Your task to perform on an android device: make emails show in primary in the gmail app Image 0: 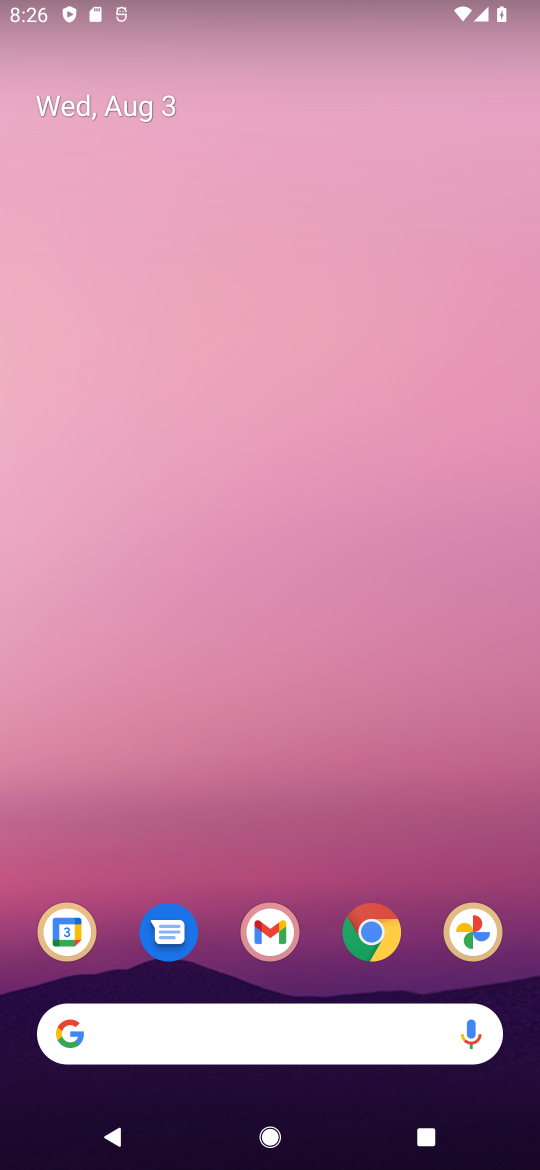
Step 0: drag from (269, 938) to (313, 143)
Your task to perform on an android device: make emails show in primary in the gmail app Image 1: 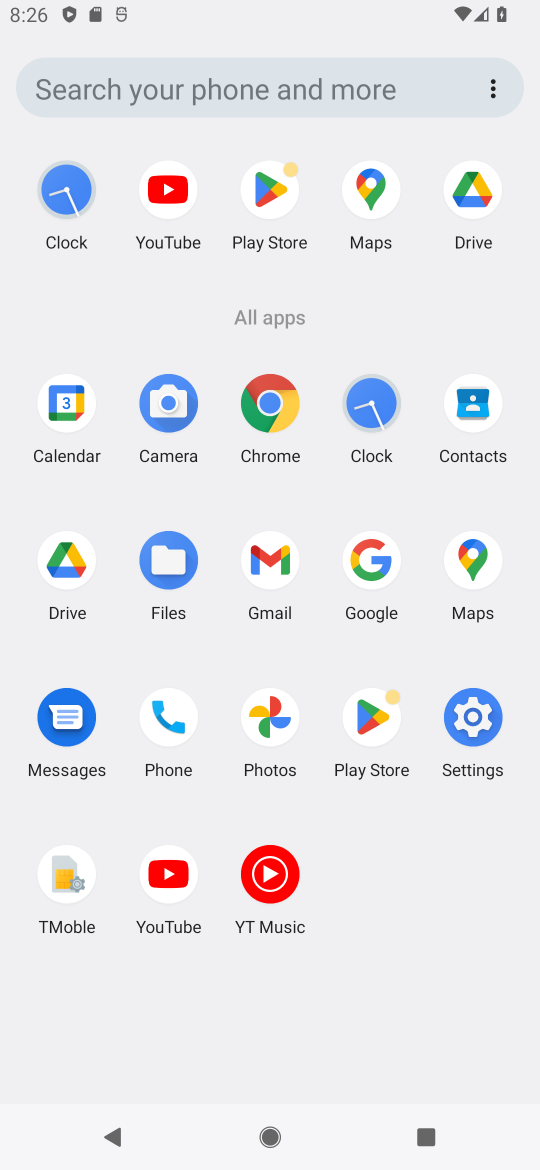
Step 1: click (285, 566)
Your task to perform on an android device: make emails show in primary in the gmail app Image 2: 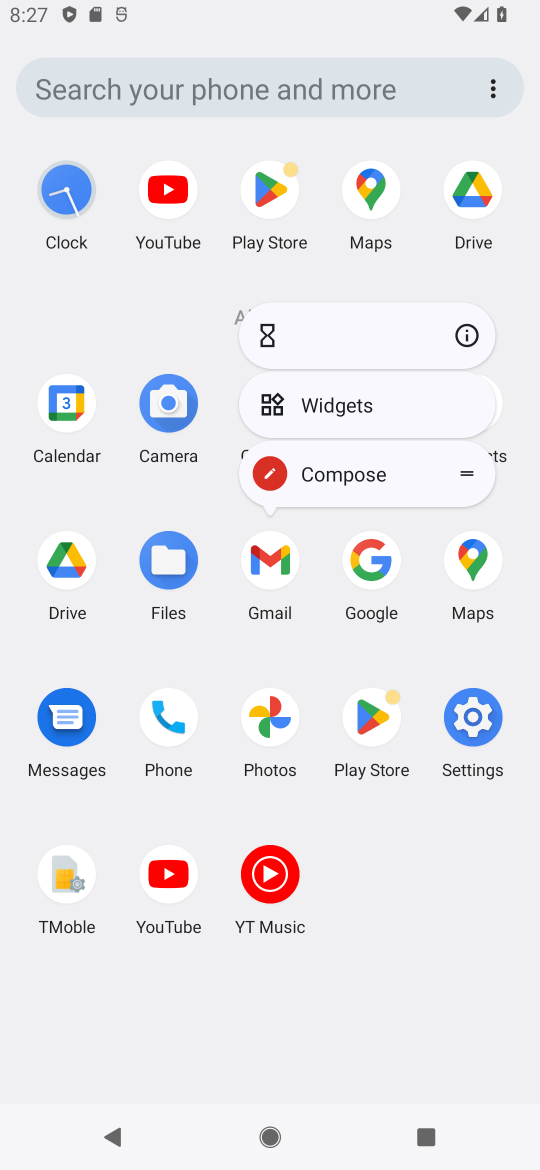
Step 2: click (270, 569)
Your task to perform on an android device: make emails show in primary in the gmail app Image 3: 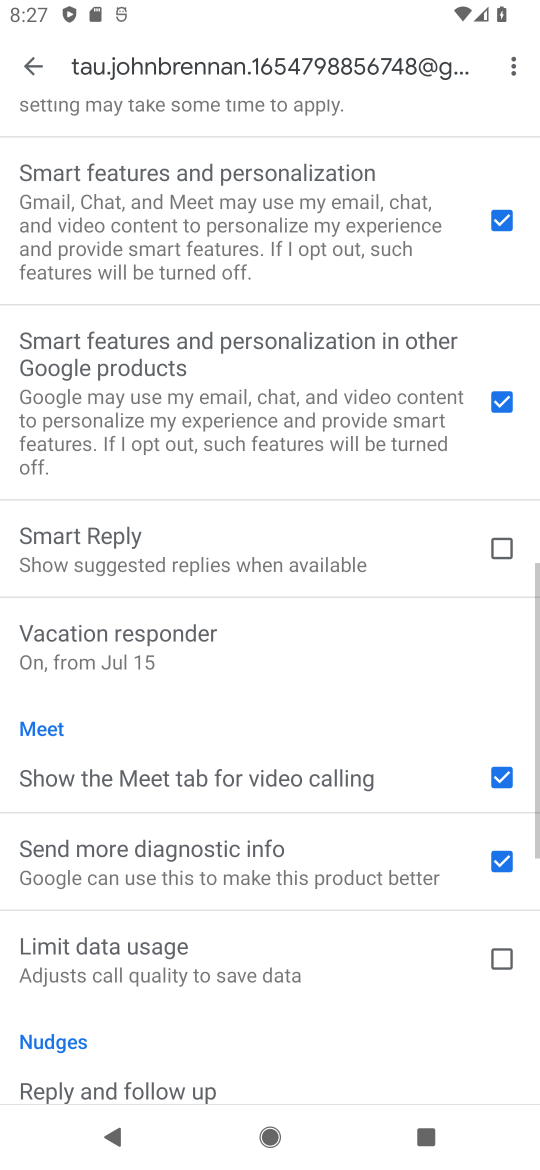
Step 3: click (34, 66)
Your task to perform on an android device: make emails show in primary in the gmail app Image 4: 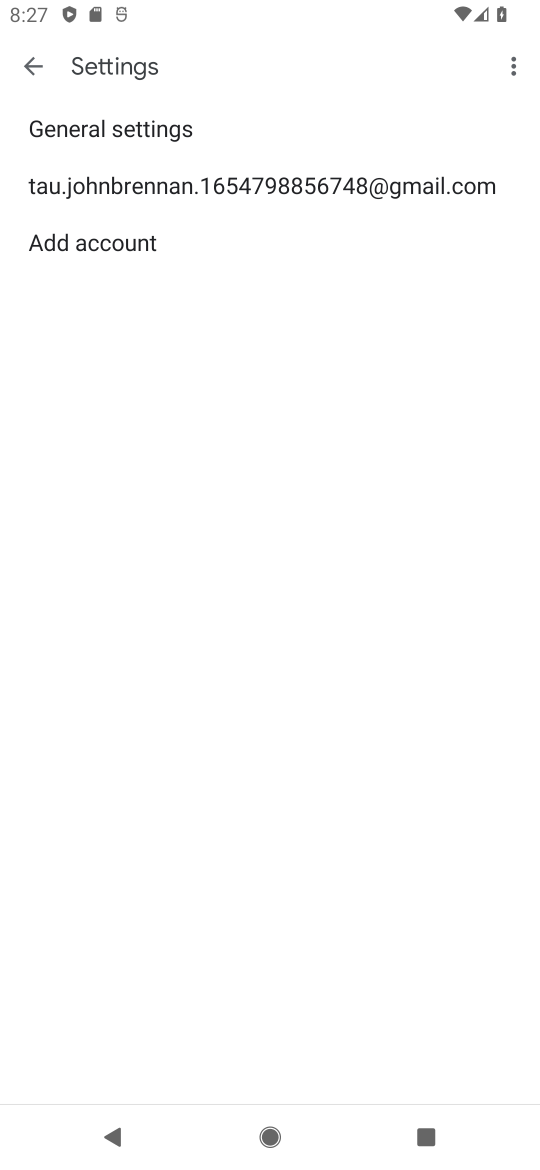
Step 4: click (34, 63)
Your task to perform on an android device: make emails show in primary in the gmail app Image 5: 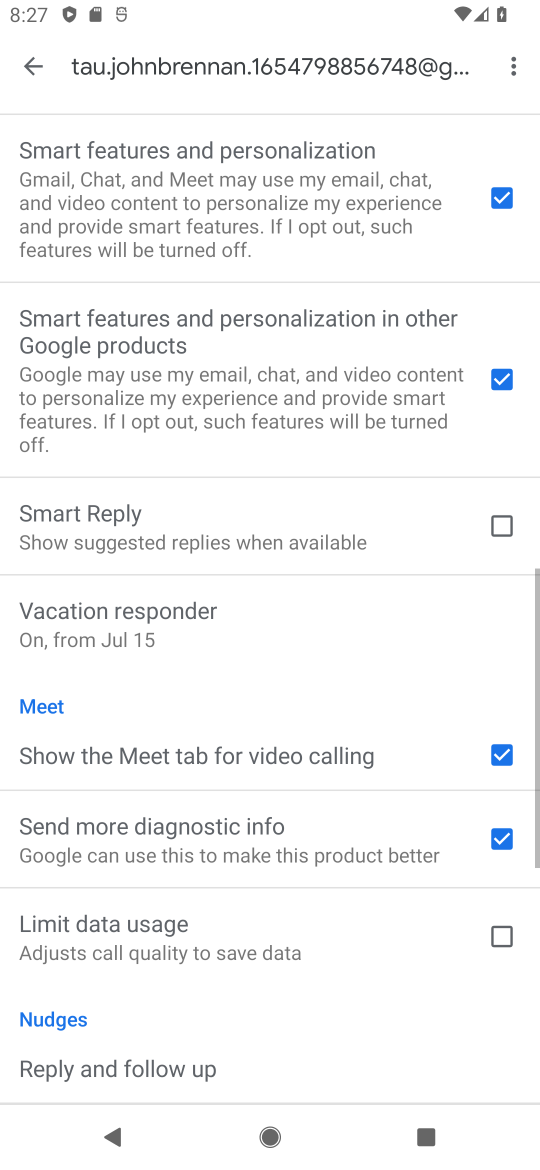
Step 5: click (34, 63)
Your task to perform on an android device: make emails show in primary in the gmail app Image 6: 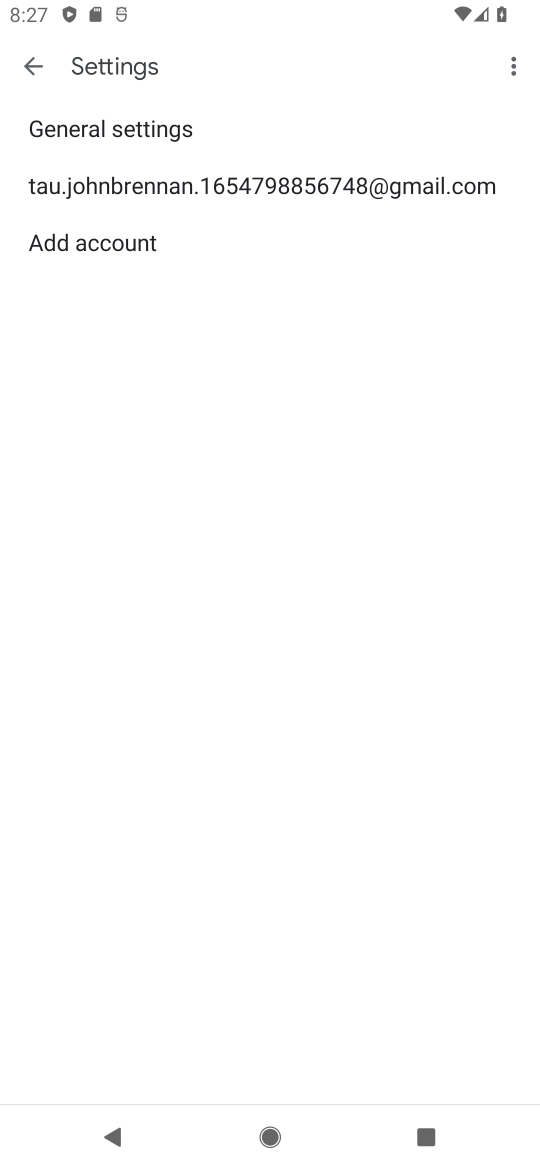
Step 6: click (34, 63)
Your task to perform on an android device: make emails show in primary in the gmail app Image 7: 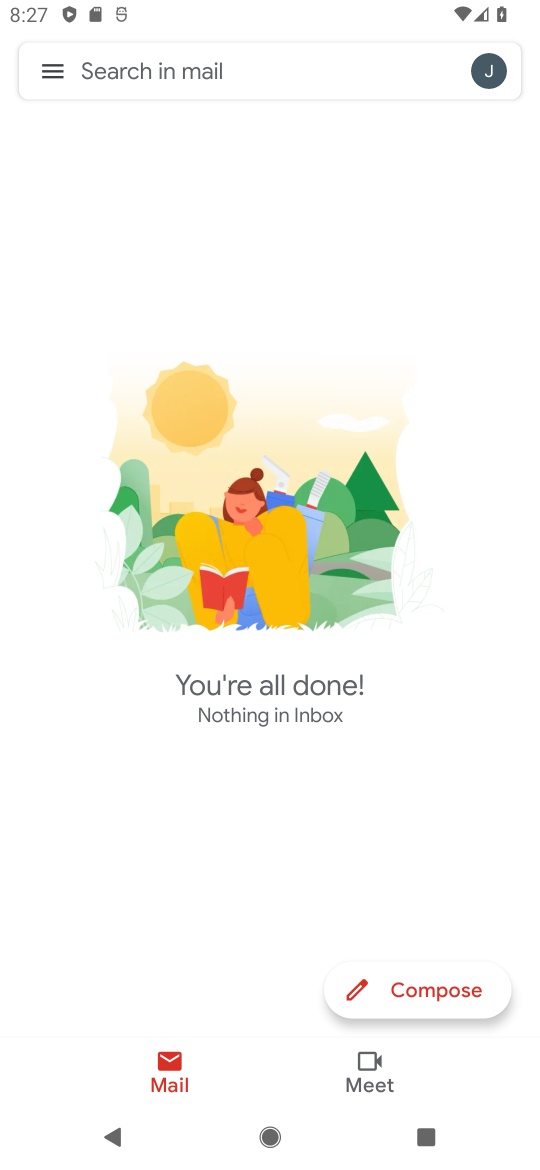
Step 7: click (46, 65)
Your task to perform on an android device: make emails show in primary in the gmail app Image 8: 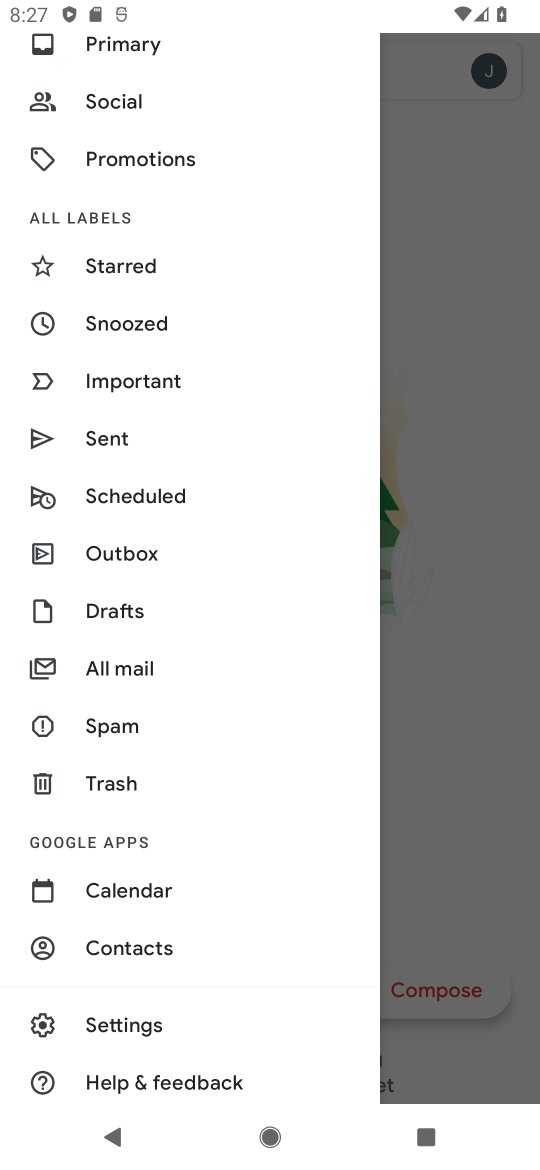
Step 8: click (136, 40)
Your task to perform on an android device: make emails show in primary in the gmail app Image 9: 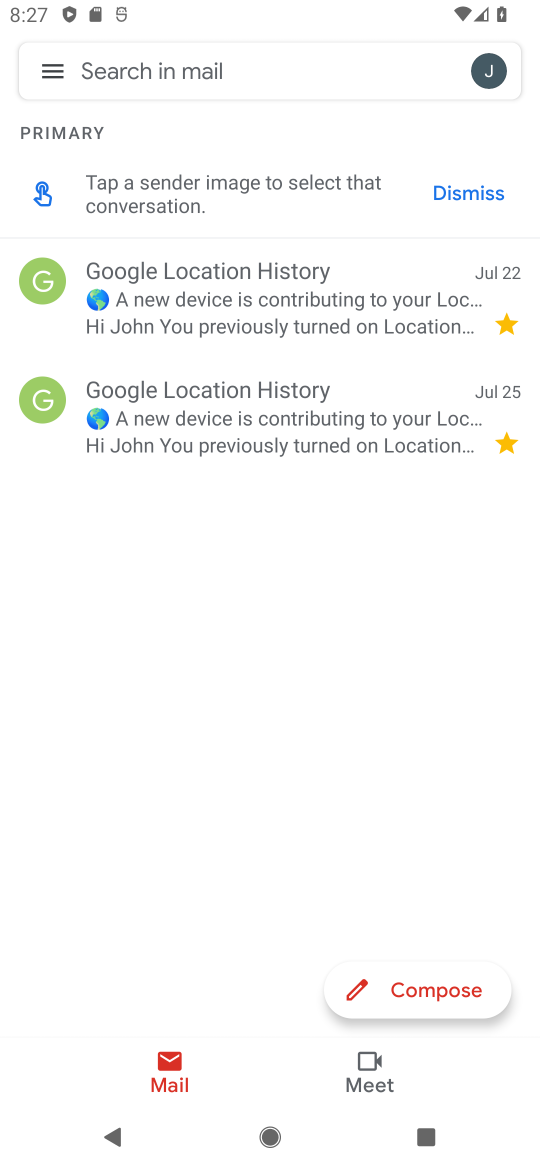
Step 9: task complete